Your task to perform on an android device: remove spam from my inbox in the gmail app Image 0: 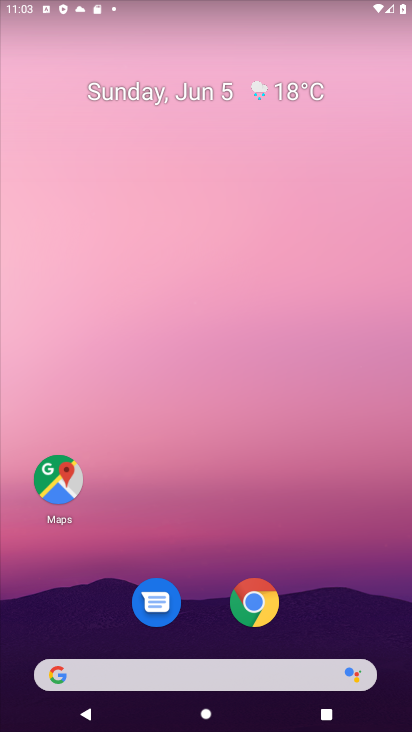
Step 0: task complete